Your task to perform on an android device: Open Wikipedia Image 0: 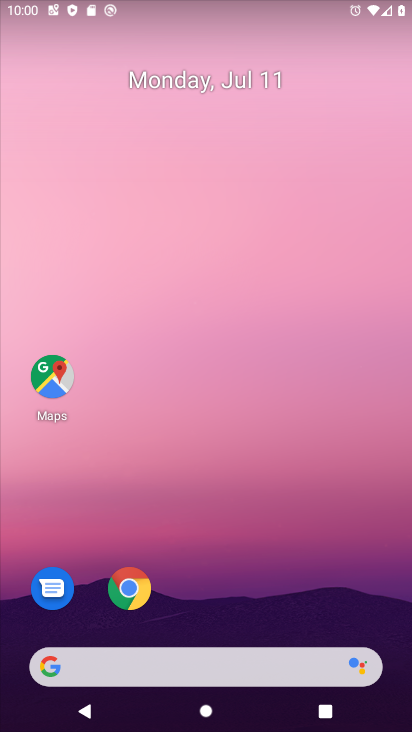
Step 0: click (121, 586)
Your task to perform on an android device: Open Wikipedia Image 1: 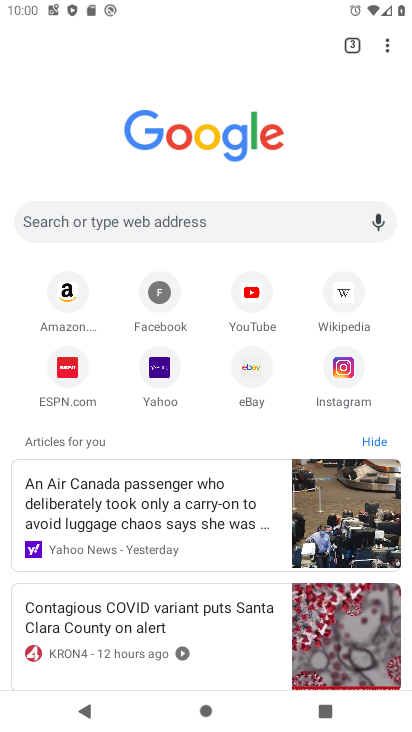
Step 1: click (342, 288)
Your task to perform on an android device: Open Wikipedia Image 2: 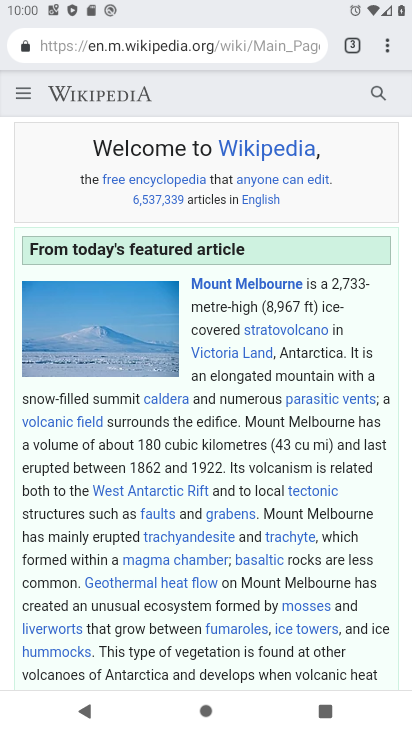
Step 2: task complete